Your task to perform on an android device: Toggle the flashlight Image 0: 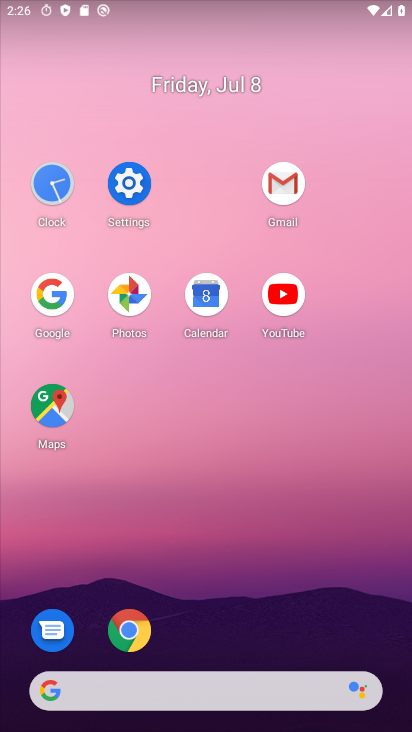
Step 0: drag from (300, 34) to (213, 607)
Your task to perform on an android device: Toggle the flashlight Image 1: 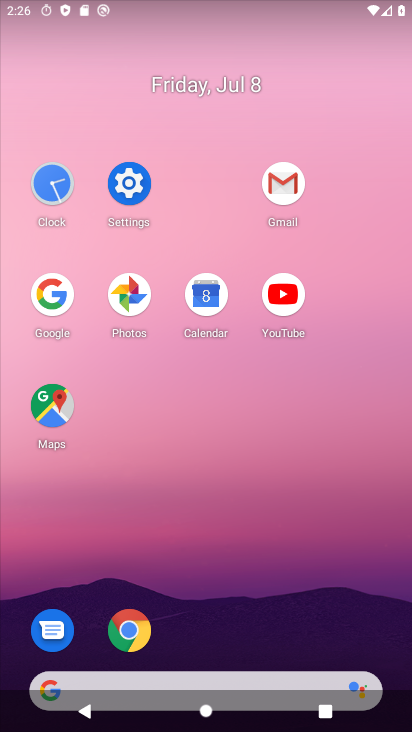
Step 1: task complete